Your task to perform on an android device: Open the stopwatch Image 0: 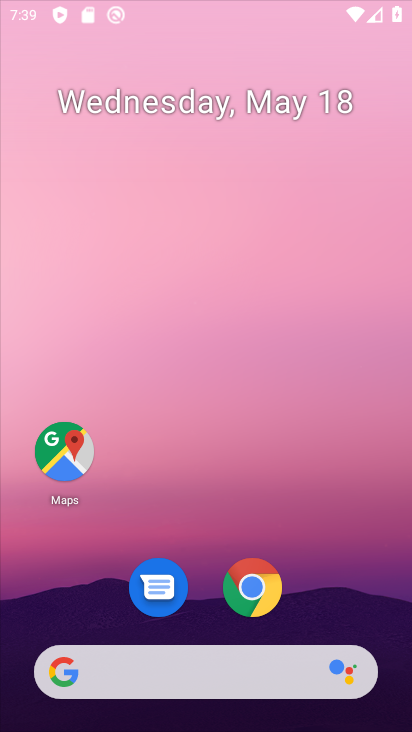
Step 0: drag from (263, 423) to (295, 66)
Your task to perform on an android device: Open the stopwatch Image 1: 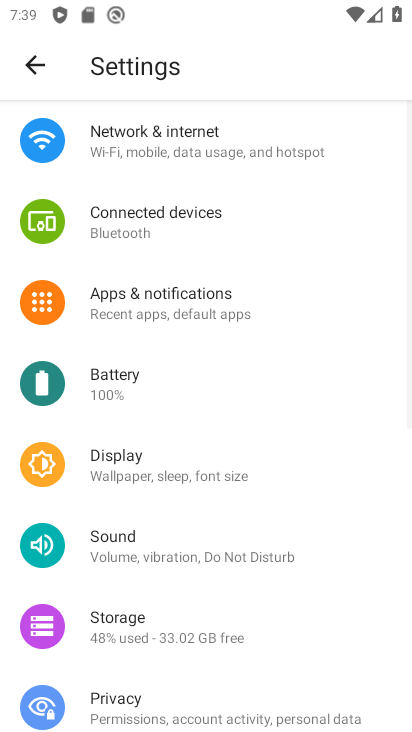
Step 1: press home button
Your task to perform on an android device: Open the stopwatch Image 2: 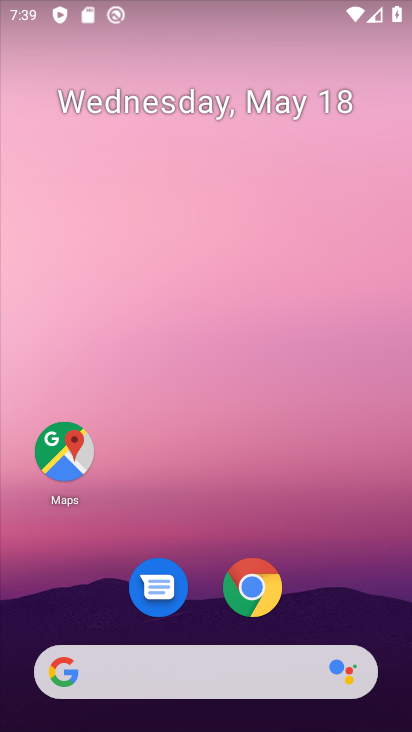
Step 2: drag from (212, 625) to (338, 155)
Your task to perform on an android device: Open the stopwatch Image 3: 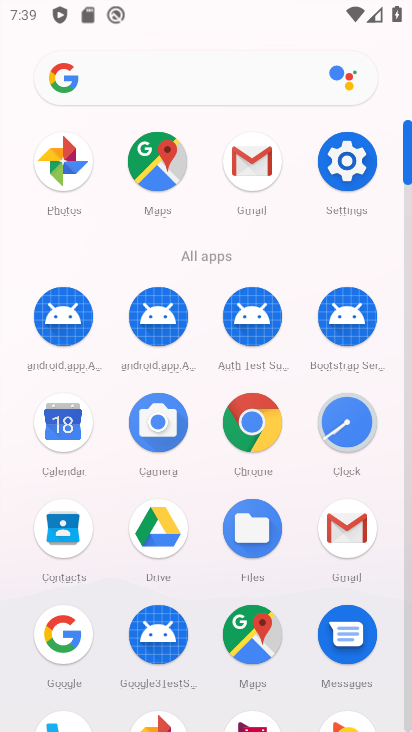
Step 3: click (350, 441)
Your task to perform on an android device: Open the stopwatch Image 4: 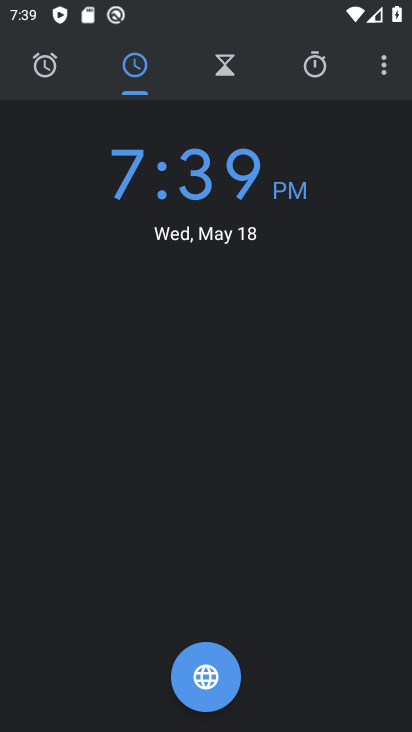
Step 4: click (324, 62)
Your task to perform on an android device: Open the stopwatch Image 5: 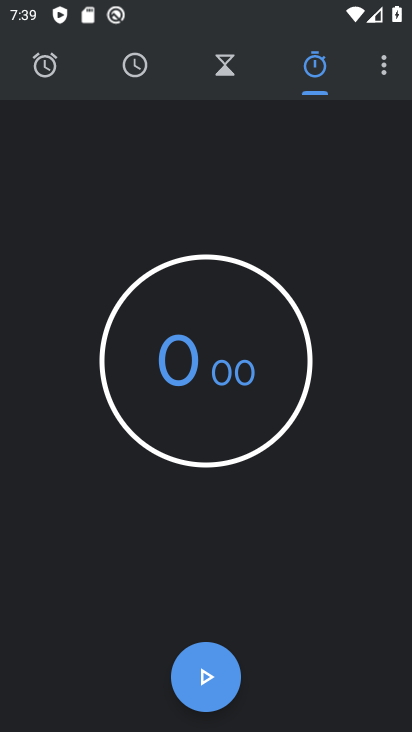
Step 5: task complete